Your task to perform on an android device: Open the phone app and click the voicemail tab. Image 0: 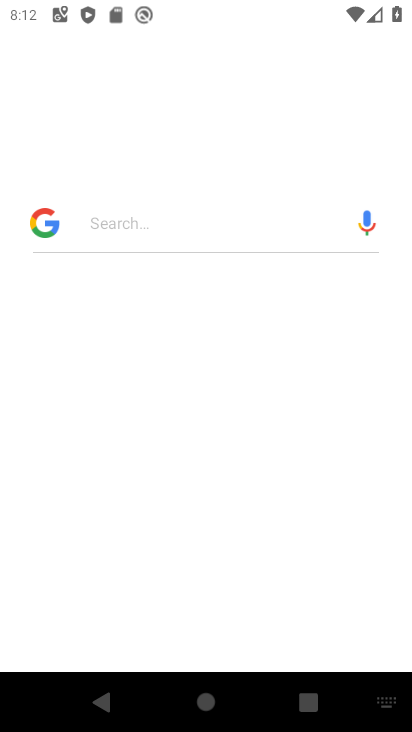
Step 0: drag from (136, 526) to (133, 492)
Your task to perform on an android device: Open the phone app and click the voicemail tab. Image 1: 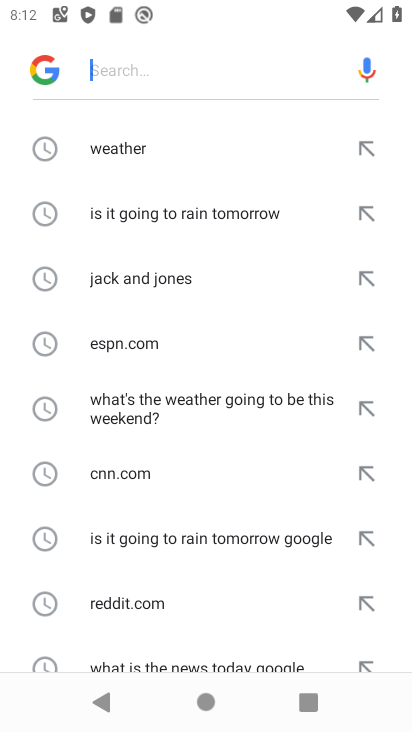
Step 1: press home button
Your task to perform on an android device: Open the phone app and click the voicemail tab. Image 2: 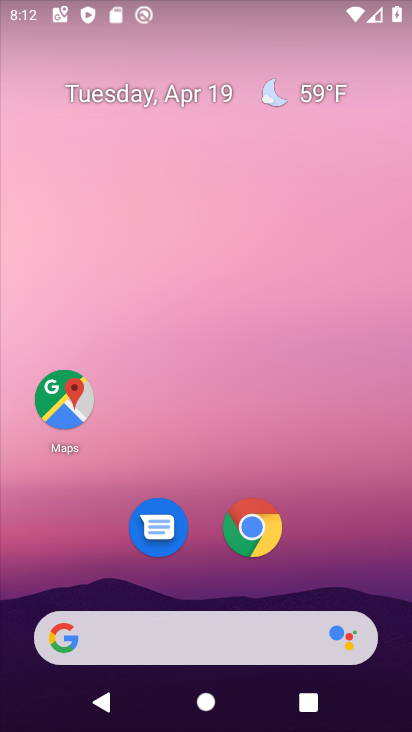
Step 2: drag from (187, 581) to (195, 213)
Your task to perform on an android device: Open the phone app and click the voicemail tab. Image 3: 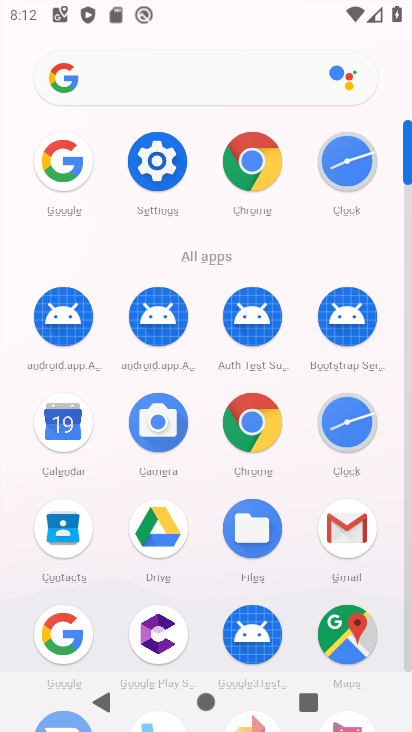
Step 3: drag from (99, 457) to (128, 227)
Your task to perform on an android device: Open the phone app and click the voicemail tab. Image 4: 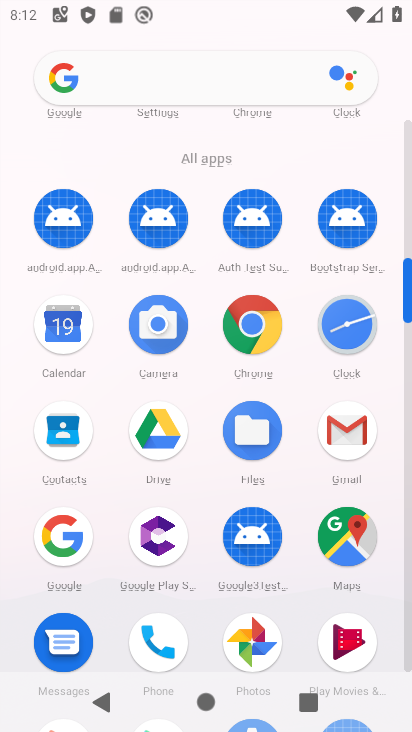
Step 4: click (163, 646)
Your task to perform on an android device: Open the phone app and click the voicemail tab. Image 5: 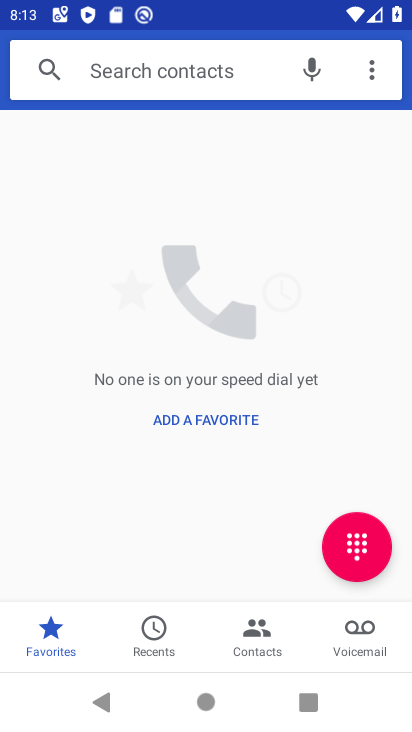
Step 5: click (345, 639)
Your task to perform on an android device: Open the phone app and click the voicemail tab. Image 6: 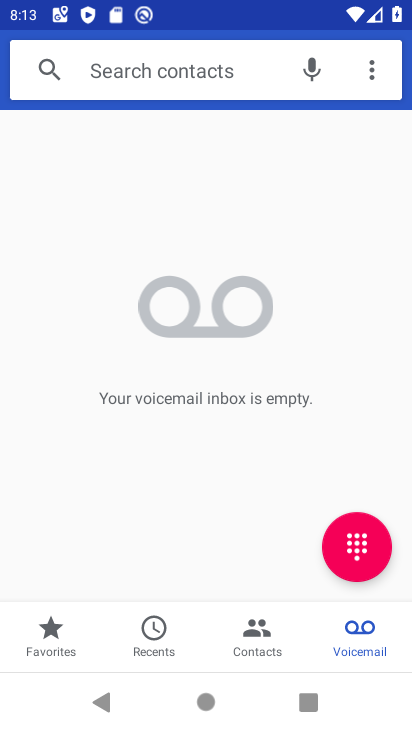
Step 6: task complete